Your task to perform on an android device: turn off smart reply in the gmail app Image 0: 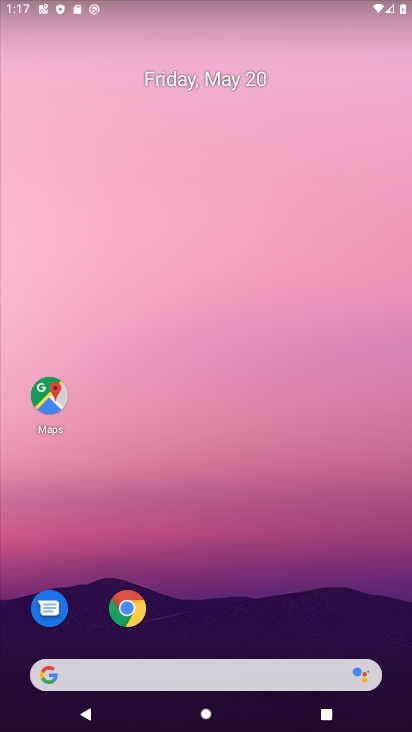
Step 0: drag from (201, 495) to (245, 122)
Your task to perform on an android device: turn off smart reply in the gmail app Image 1: 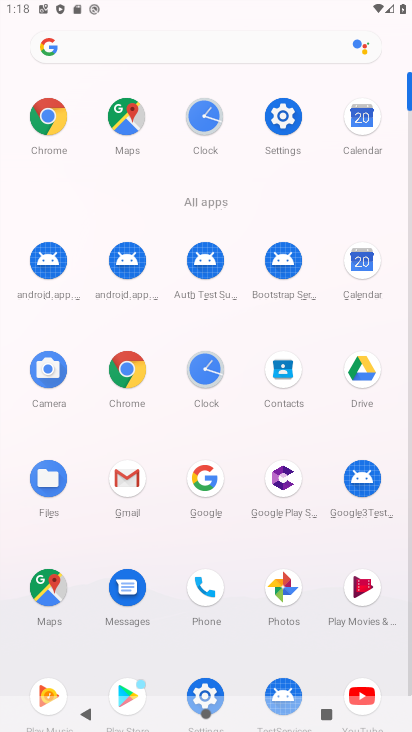
Step 1: click (123, 455)
Your task to perform on an android device: turn off smart reply in the gmail app Image 2: 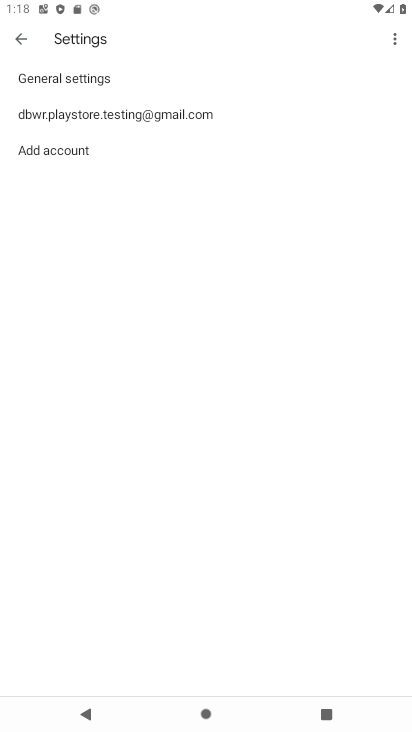
Step 2: click (186, 107)
Your task to perform on an android device: turn off smart reply in the gmail app Image 3: 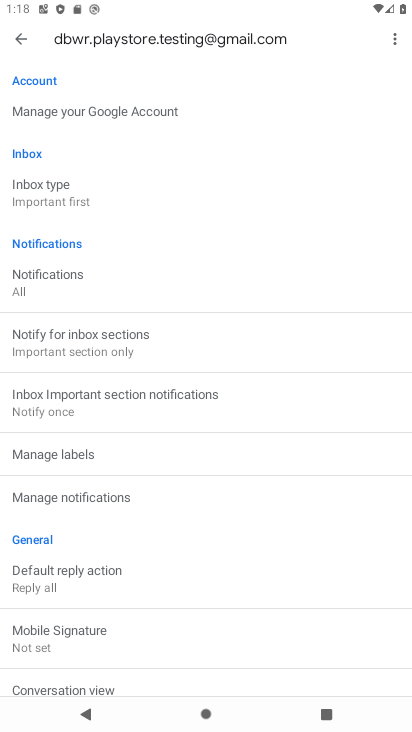
Step 3: drag from (134, 664) to (285, 27)
Your task to perform on an android device: turn off smart reply in the gmail app Image 4: 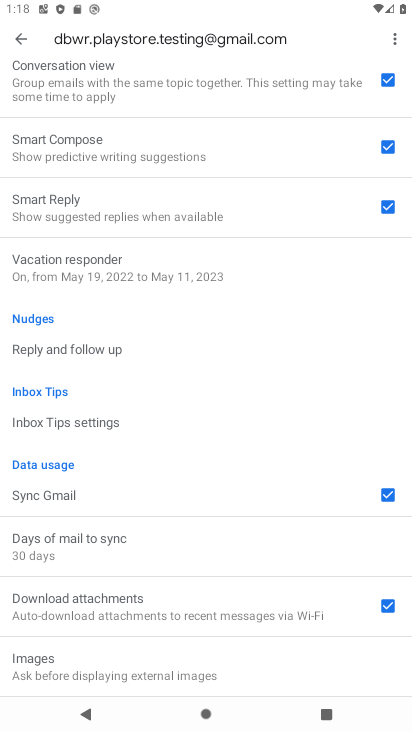
Step 4: click (385, 208)
Your task to perform on an android device: turn off smart reply in the gmail app Image 5: 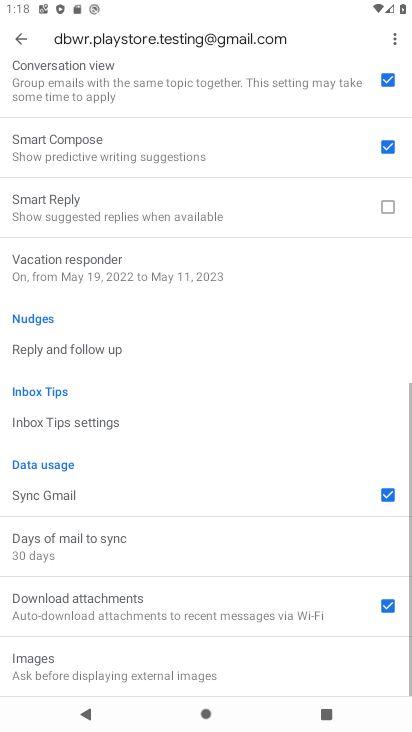
Step 5: task complete